Your task to perform on an android device: Open notification settings Image 0: 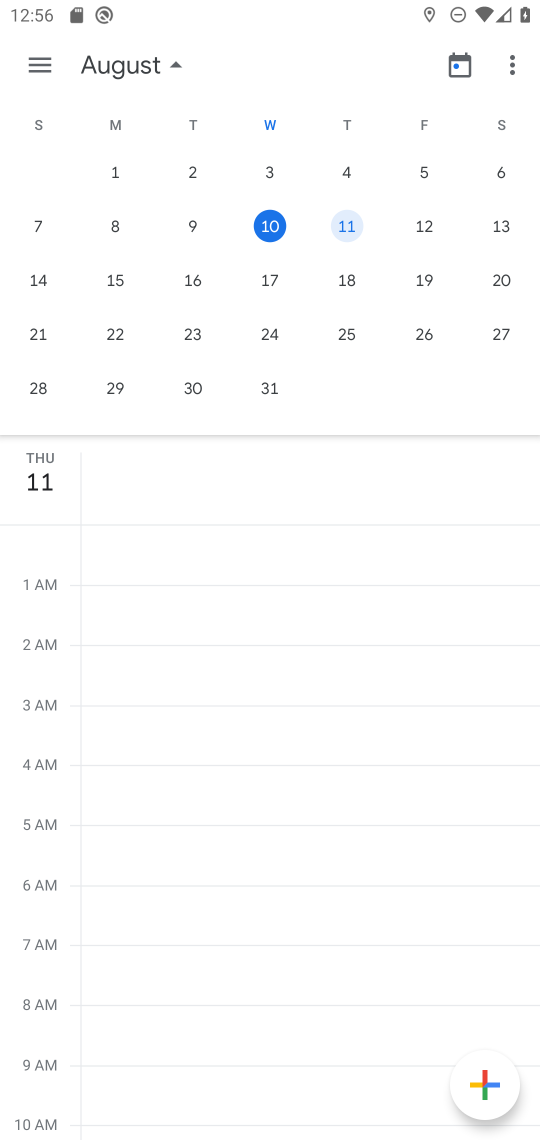
Step 0: press home button
Your task to perform on an android device: Open notification settings Image 1: 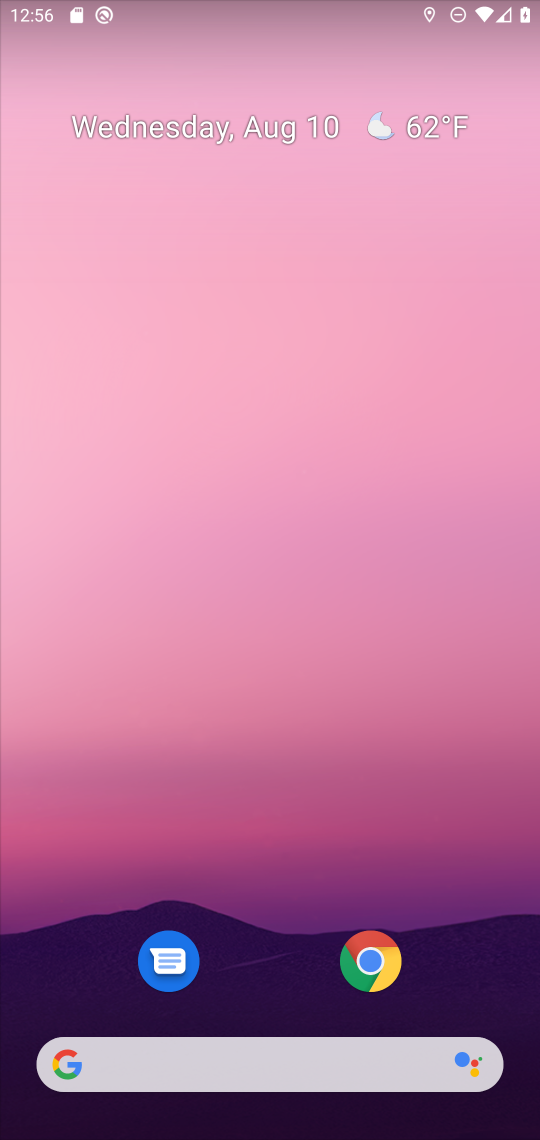
Step 1: drag from (273, 973) to (246, 79)
Your task to perform on an android device: Open notification settings Image 2: 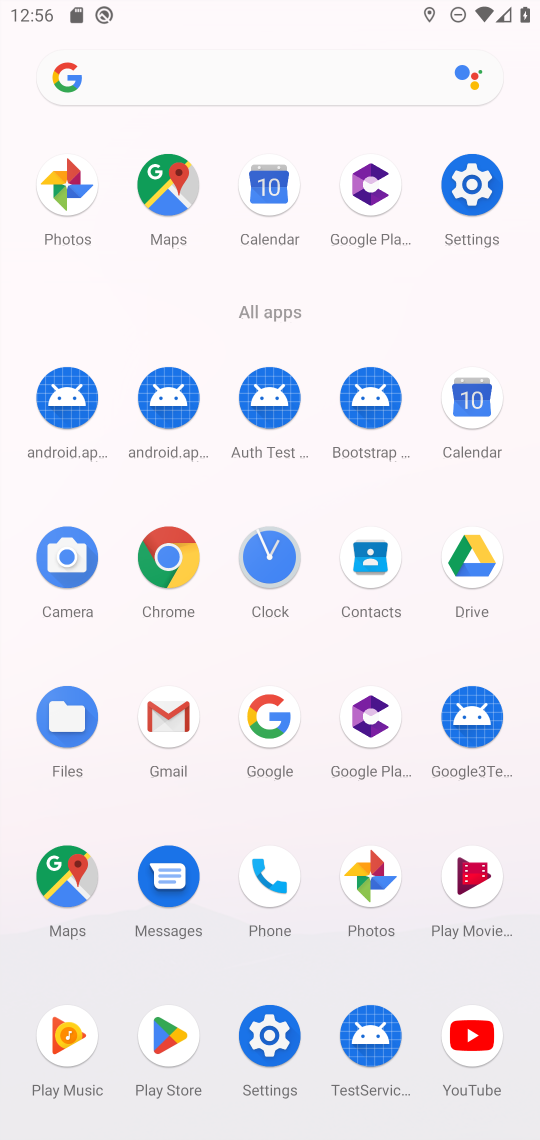
Step 2: click (473, 182)
Your task to perform on an android device: Open notification settings Image 3: 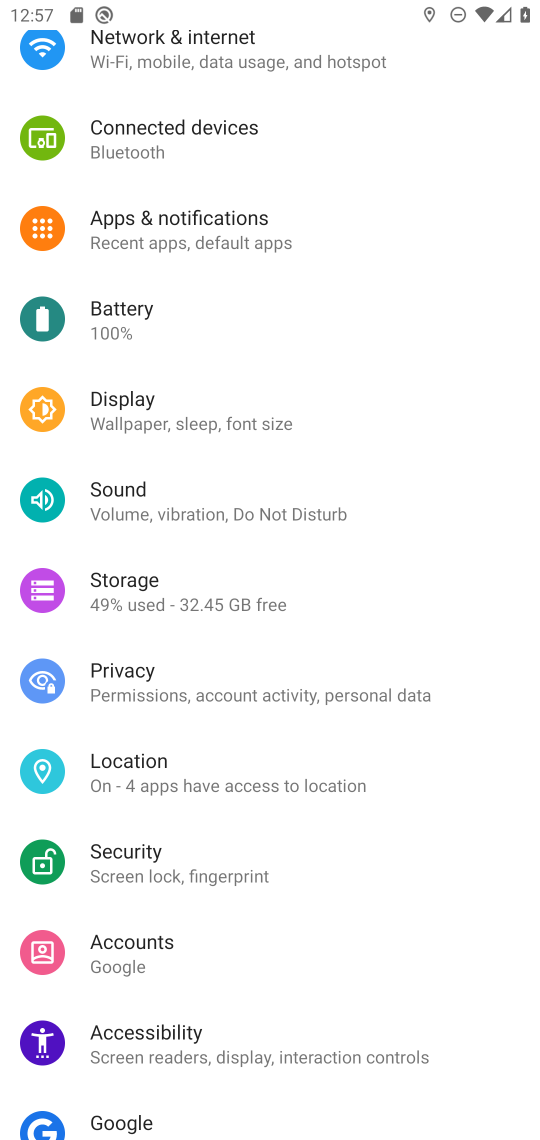
Step 3: click (150, 213)
Your task to perform on an android device: Open notification settings Image 4: 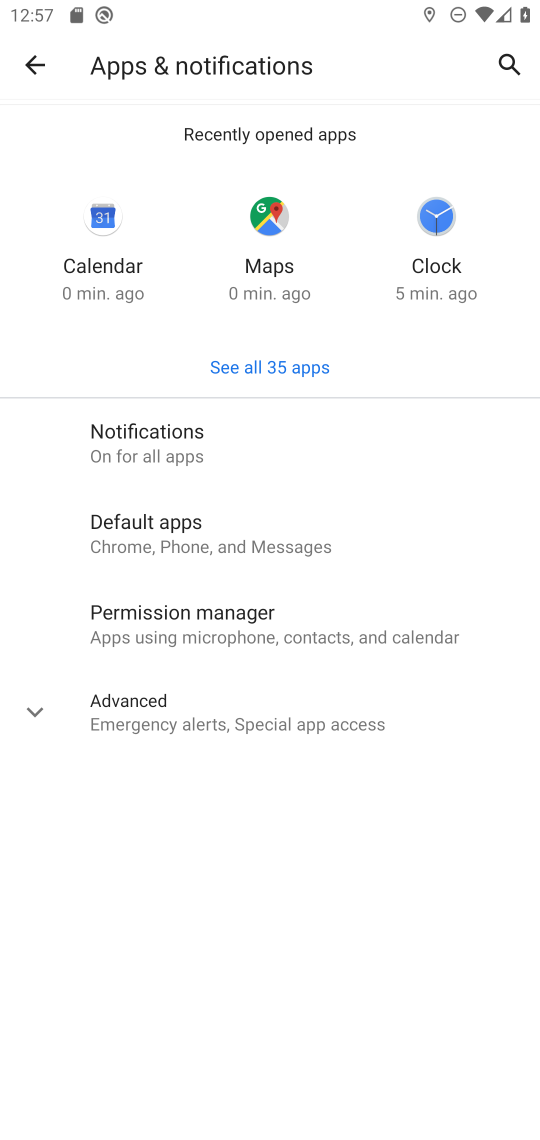
Step 4: task complete